Your task to perform on an android device: Open CNN.com Image 0: 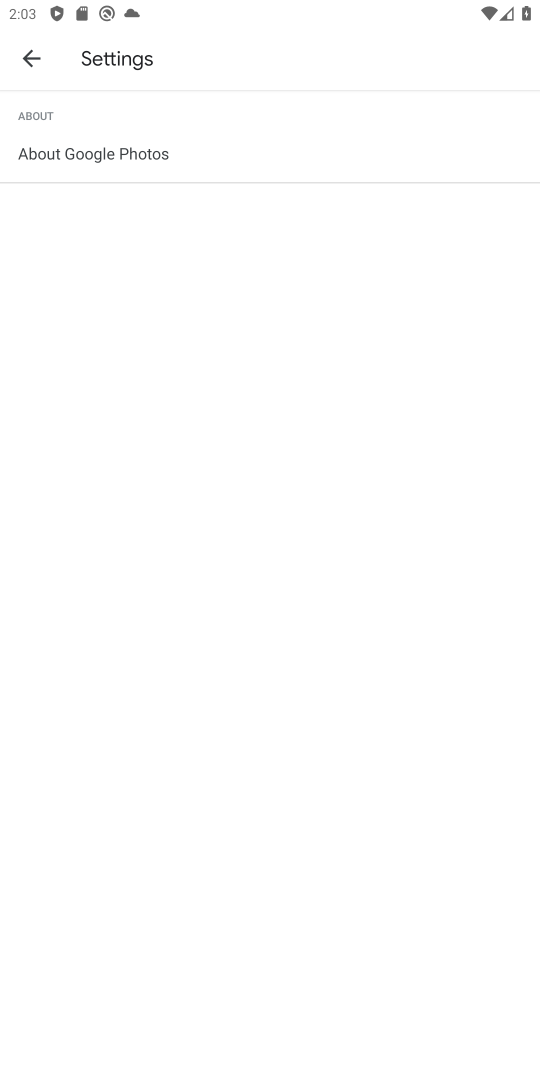
Step 0: press home button
Your task to perform on an android device: Open CNN.com Image 1: 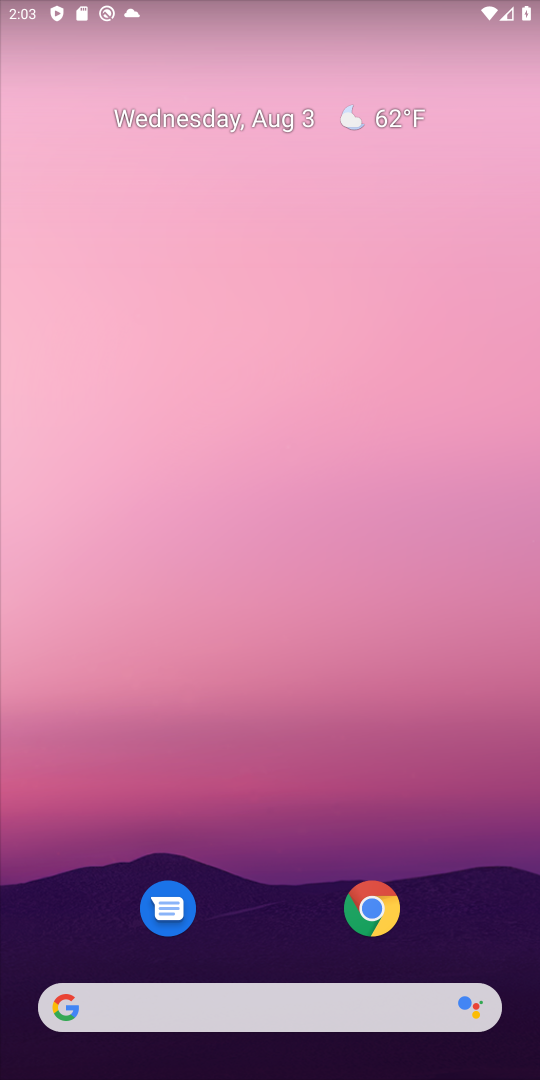
Step 1: click (251, 1021)
Your task to perform on an android device: Open CNN.com Image 2: 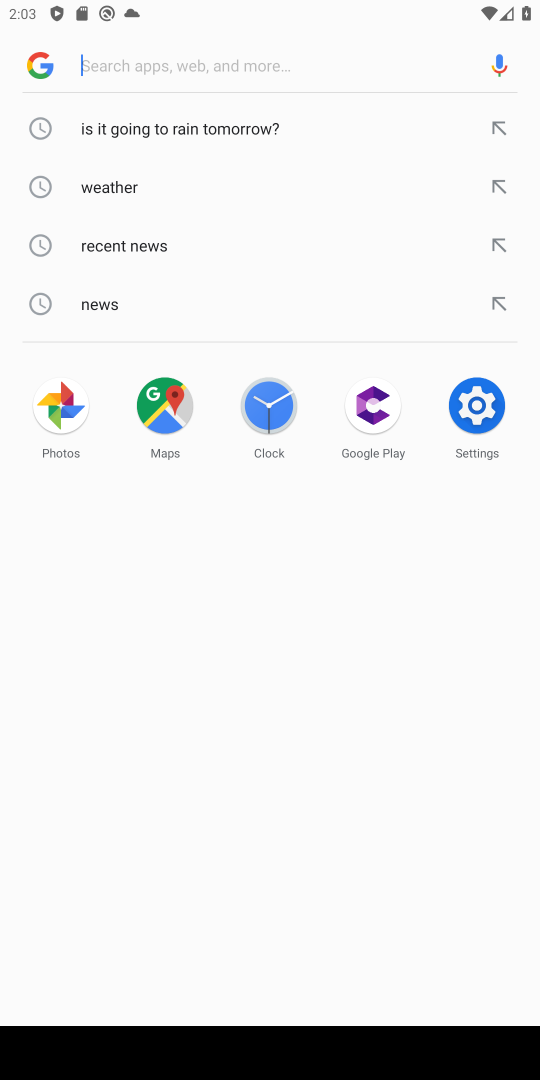
Step 2: type "cnn.com"
Your task to perform on an android device: Open CNN.com Image 3: 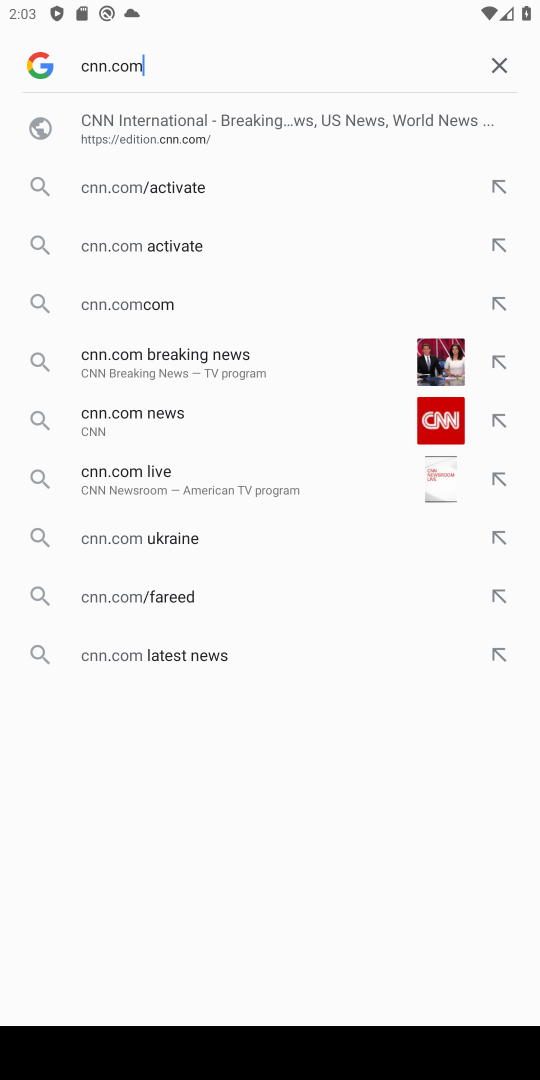
Step 3: click (229, 127)
Your task to perform on an android device: Open CNN.com Image 4: 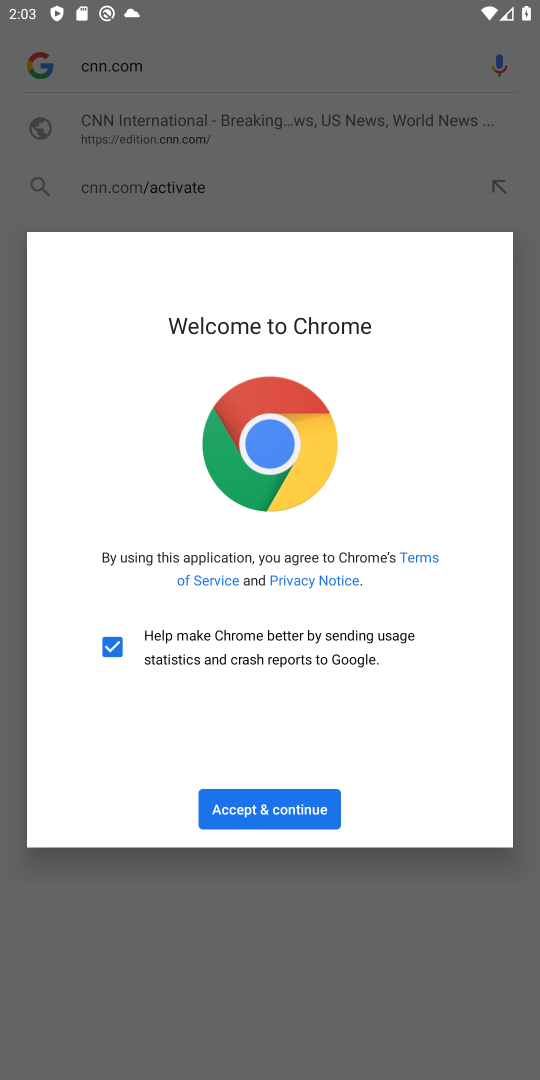
Step 4: click (294, 824)
Your task to perform on an android device: Open CNN.com Image 5: 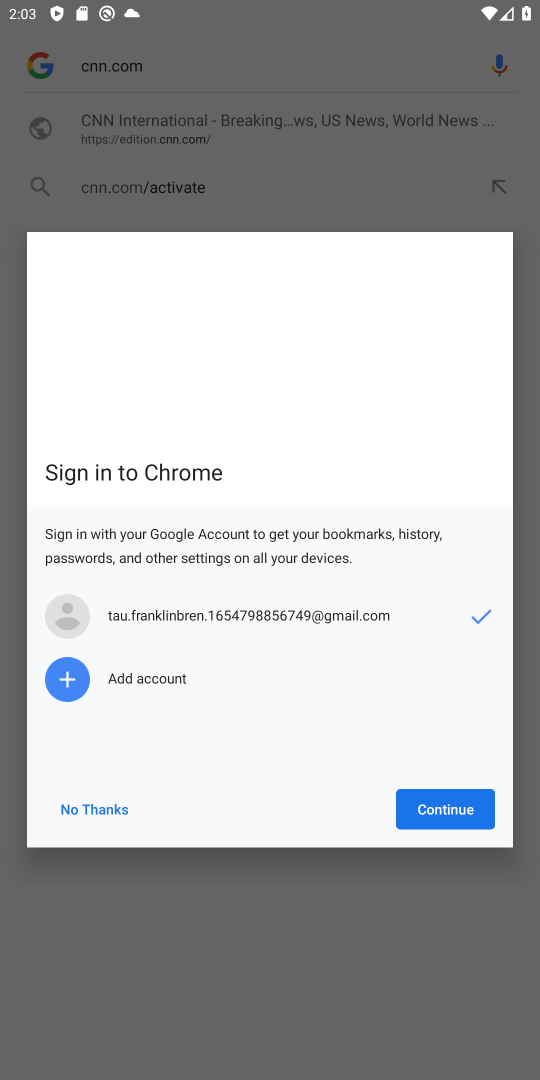
Step 5: click (448, 807)
Your task to perform on an android device: Open CNN.com Image 6: 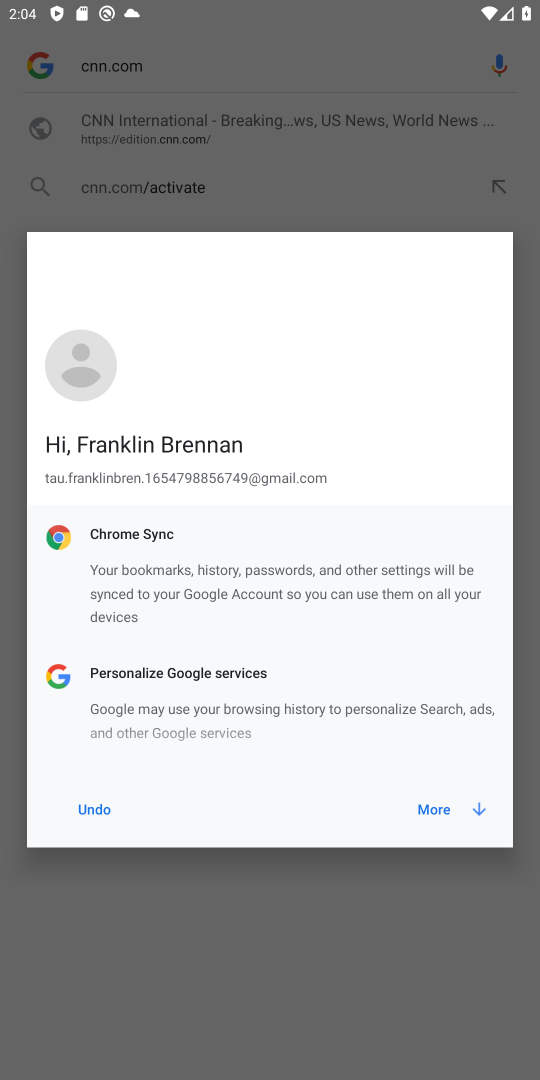
Step 6: click (448, 811)
Your task to perform on an android device: Open CNN.com Image 7: 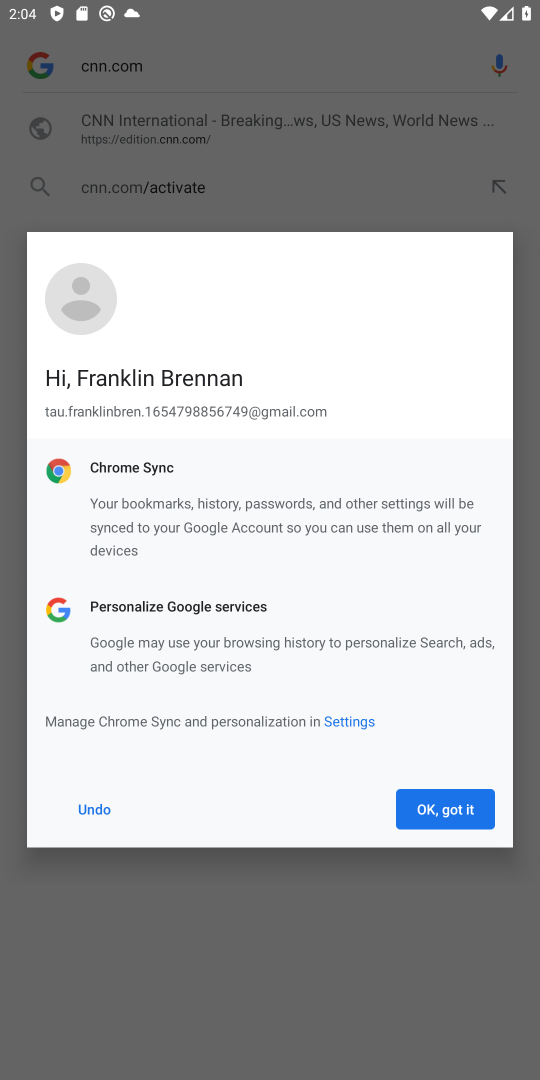
Step 7: click (448, 811)
Your task to perform on an android device: Open CNN.com Image 8: 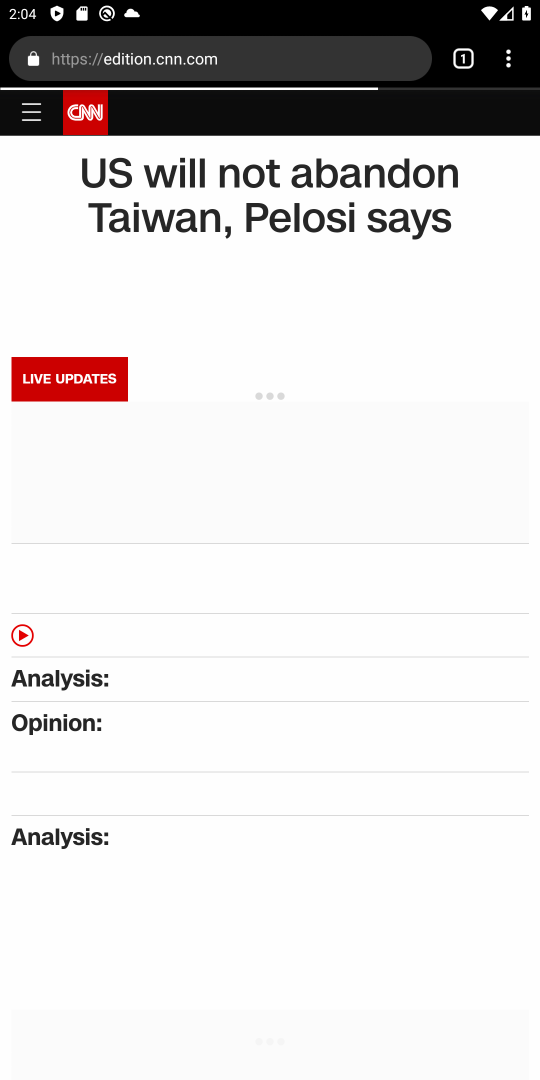
Step 8: task complete